Your task to perform on an android device: Open Amazon Image 0: 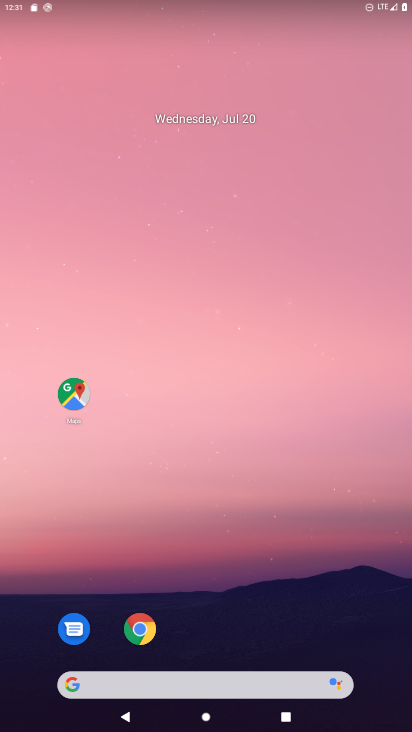
Step 0: click (142, 643)
Your task to perform on an android device: Open Amazon Image 1: 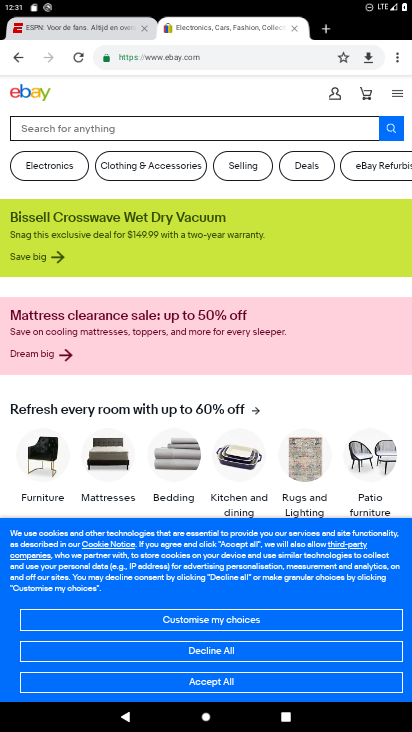
Step 1: click (293, 28)
Your task to perform on an android device: Open Amazon Image 2: 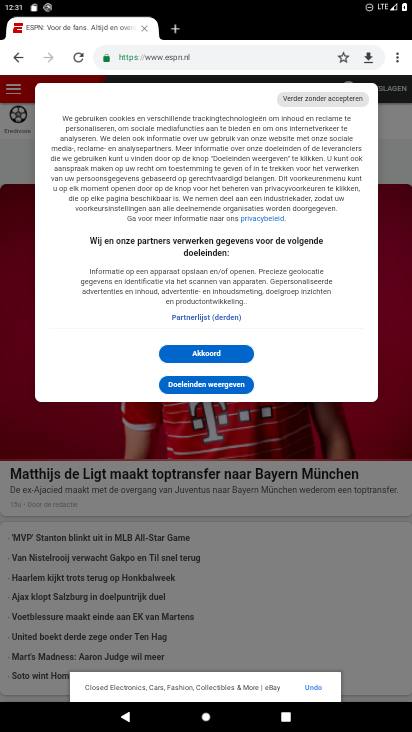
Step 2: click (291, 28)
Your task to perform on an android device: Open Amazon Image 3: 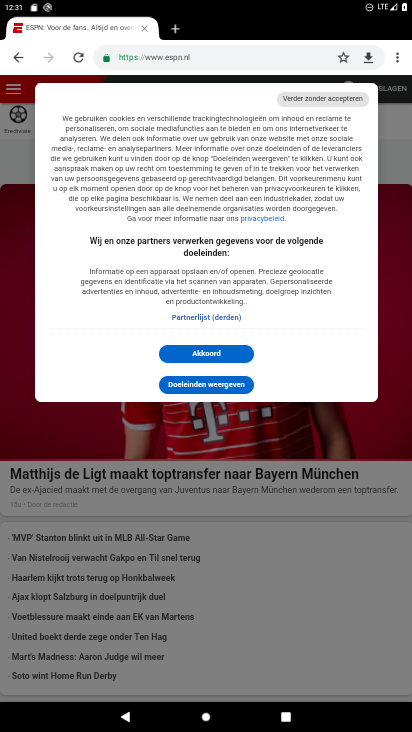
Step 3: click (174, 36)
Your task to perform on an android device: Open Amazon Image 4: 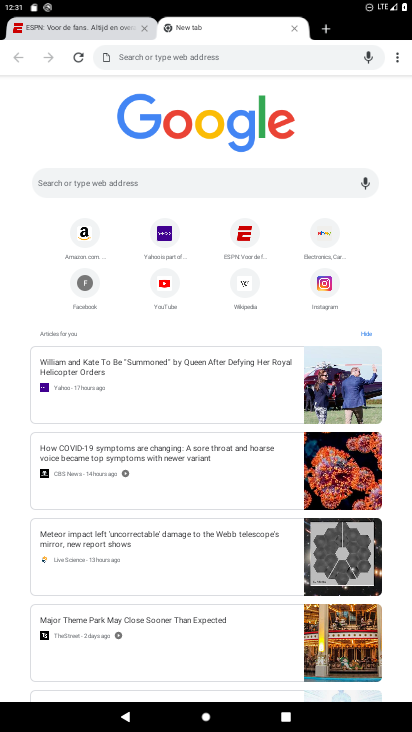
Step 4: click (144, 26)
Your task to perform on an android device: Open Amazon Image 5: 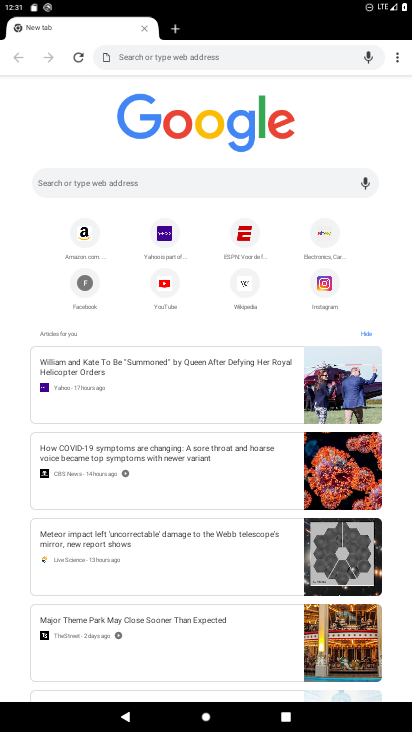
Step 5: click (80, 251)
Your task to perform on an android device: Open Amazon Image 6: 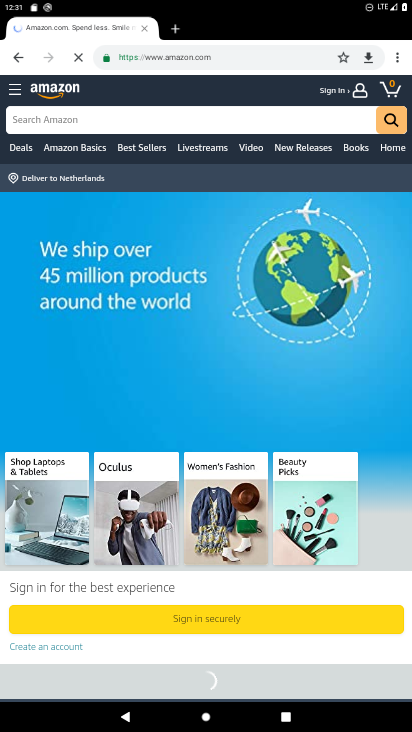
Step 6: task complete